Your task to perform on an android device: toggle improve location accuracy Image 0: 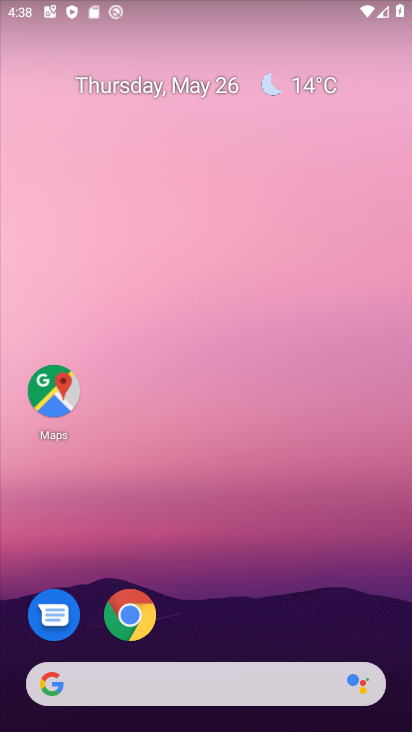
Step 0: drag from (273, 541) to (262, 171)
Your task to perform on an android device: toggle improve location accuracy Image 1: 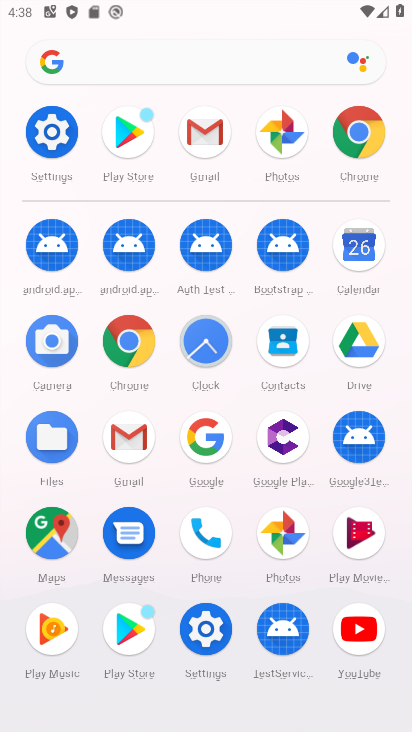
Step 1: click (52, 145)
Your task to perform on an android device: toggle improve location accuracy Image 2: 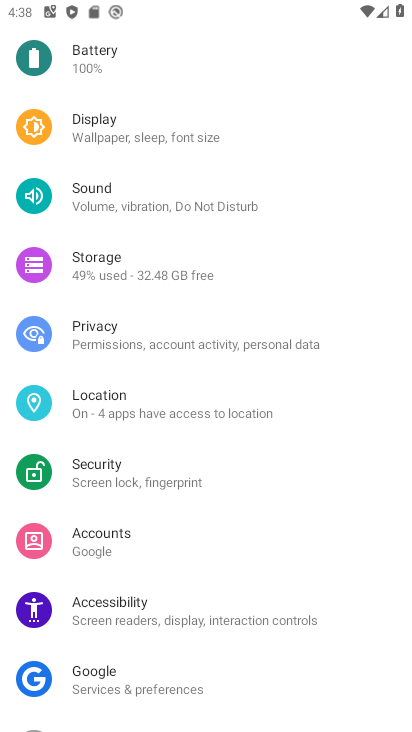
Step 2: click (184, 402)
Your task to perform on an android device: toggle improve location accuracy Image 3: 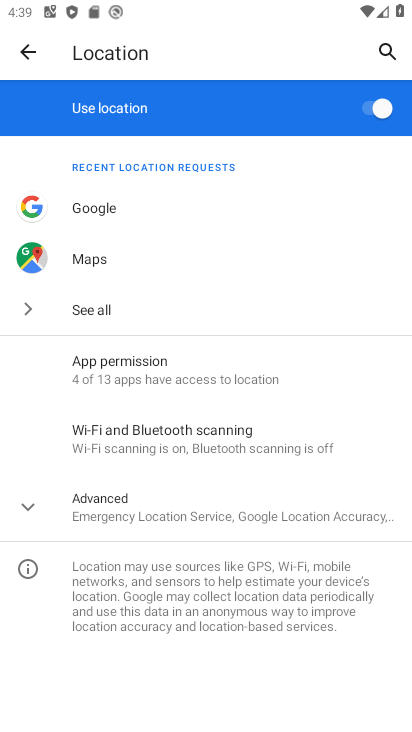
Step 3: click (117, 507)
Your task to perform on an android device: toggle improve location accuracy Image 4: 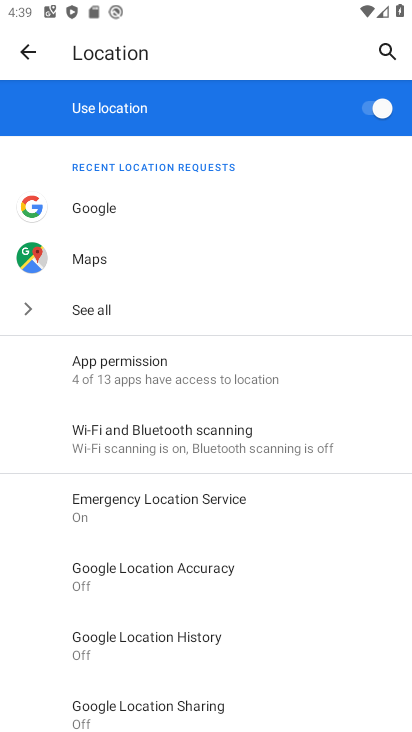
Step 4: click (196, 581)
Your task to perform on an android device: toggle improve location accuracy Image 5: 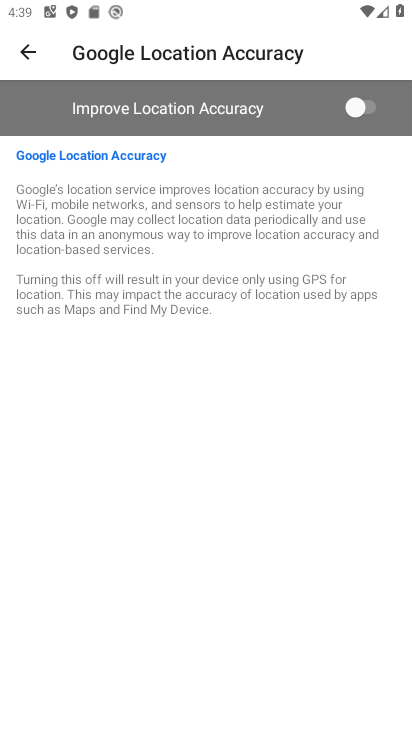
Step 5: click (364, 105)
Your task to perform on an android device: toggle improve location accuracy Image 6: 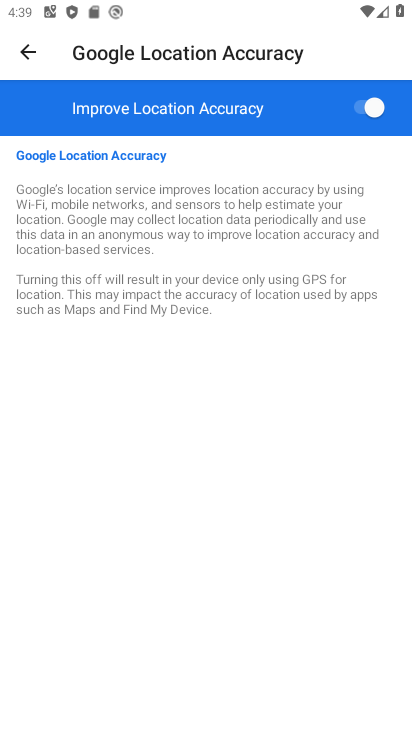
Step 6: task complete